Your task to perform on an android device: check battery use Image 0: 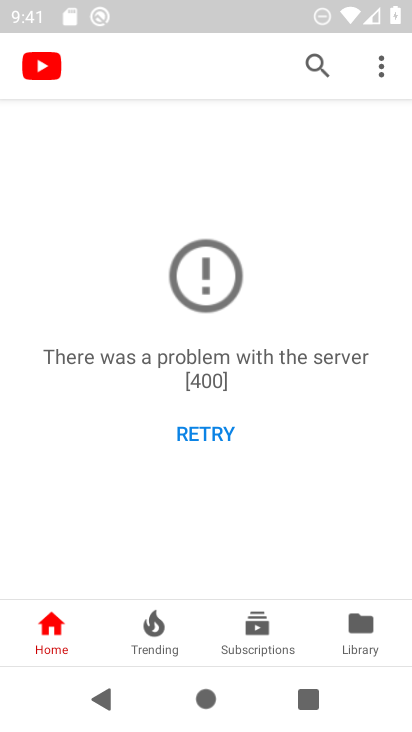
Step 0: press home button
Your task to perform on an android device: check battery use Image 1: 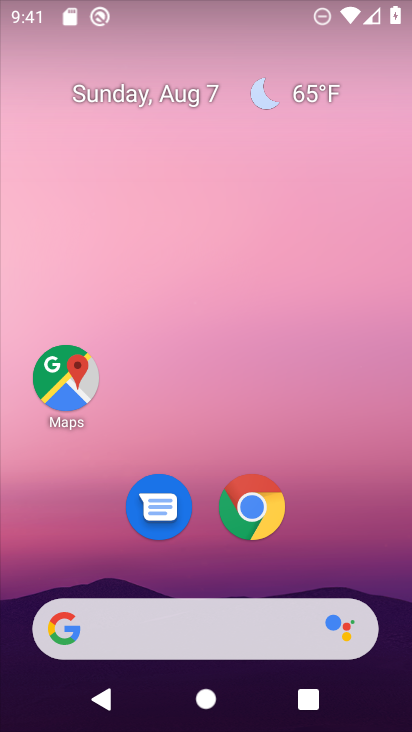
Step 1: drag from (359, 523) to (260, 1)
Your task to perform on an android device: check battery use Image 2: 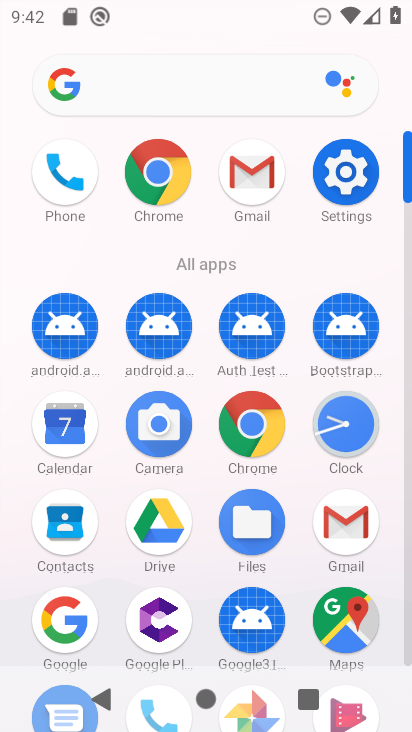
Step 2: drag from (298, 653) to (326, 315)
Your task to perform on an android device: check battery use Image 3: 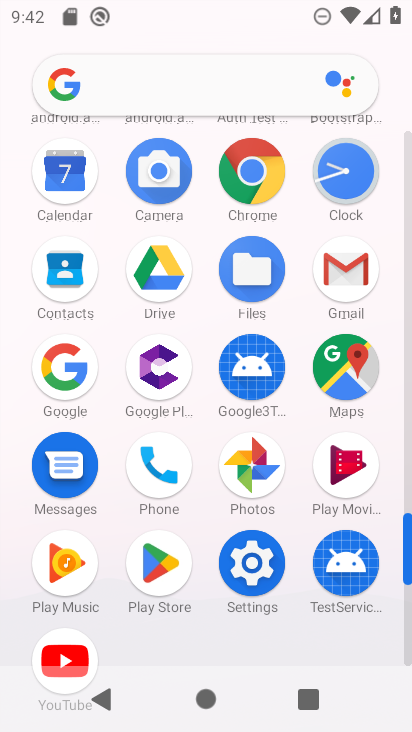
Step 3: click (269, 561)
Your task to perform on an android device: check battery use Image 4: 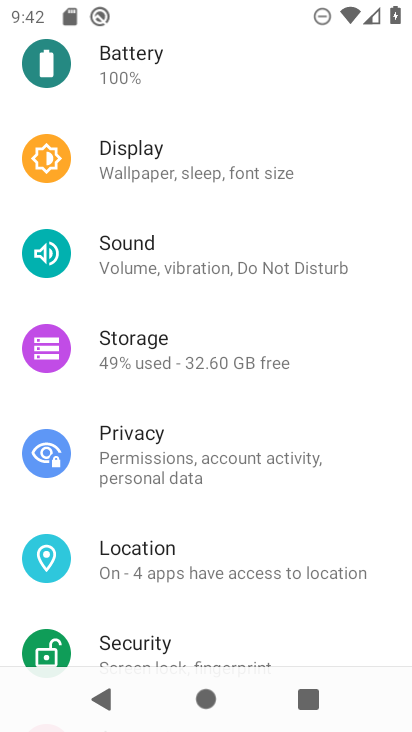
Step 4: click (114, 65)
Your task to perform on an android device: check battery use Image 5: 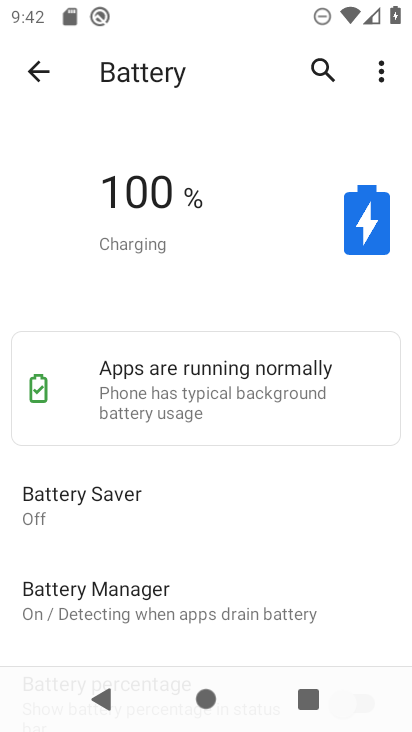
Step 5: click (394, 60)
Your task to perform on an android device: check battery use Image 6: 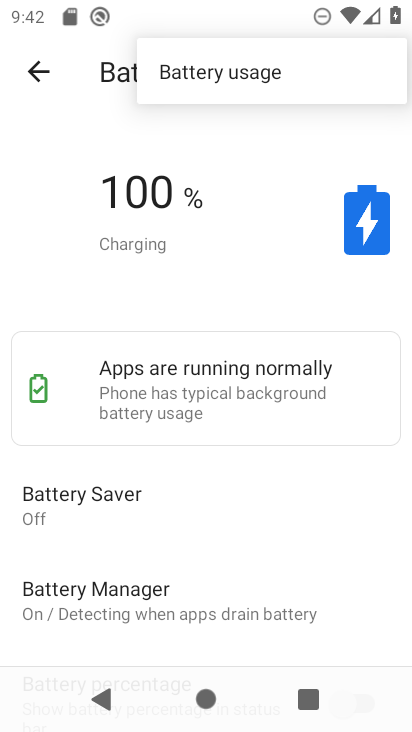
Step 6: click (246, 80)
Your task to perform on an android device: check battery use Image 7: 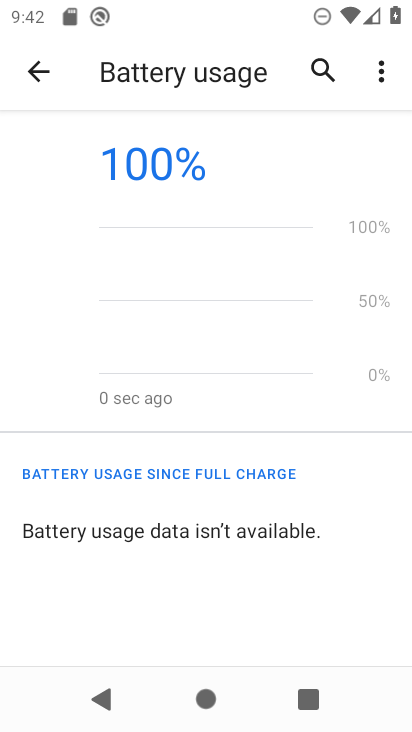
Step 7: task complete